Your task to perform on an android device: stop showing notifications on the lock screen Image 0: 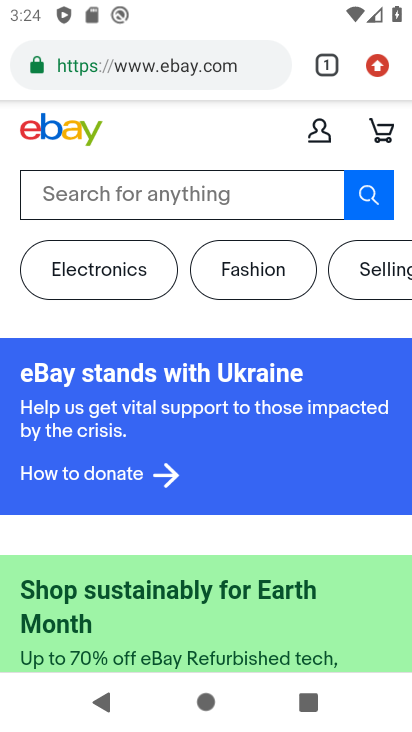
Step 0: press home button
Your task to perform on an android device: stop showing notifications on the lock screen Image 1: 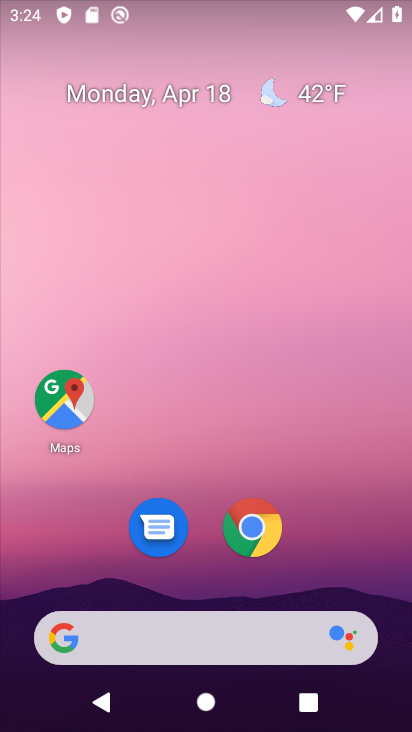
Step 1: drag from (404, 659) to (362, 79)
Your task to perform on an android device: stop showing notifications on the lock screen Image 2: 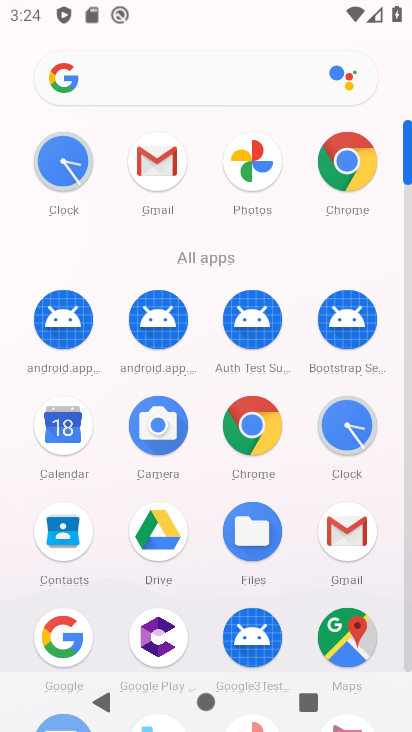
Step 2: click (406, 652)
Your task to perform on an android device: stop showing notifications on the lock screen Image 3: 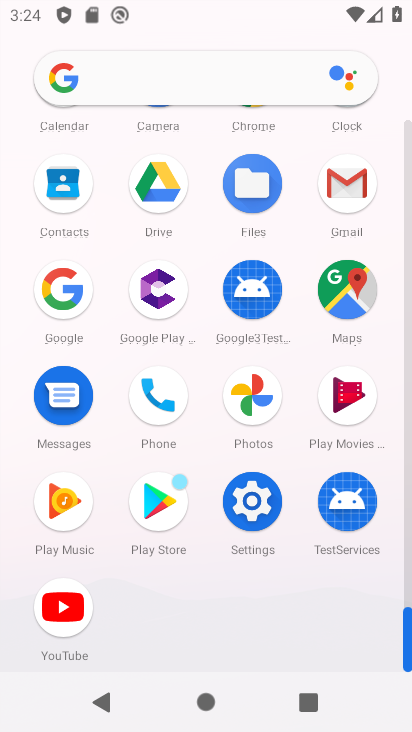
Step 3: click (251, 500)
Your task to perform on an android device: stop showing notifications on the lock screen Image 4: 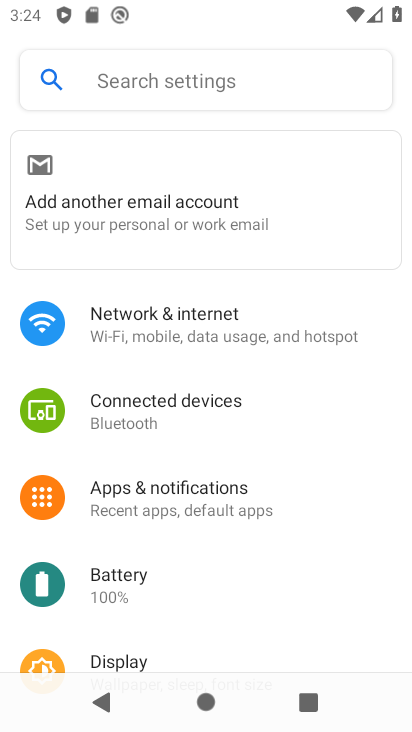
Step 4: click (194, 482)
Your task to perform on an android device: stop showing notifications on the lock screen Image 5: 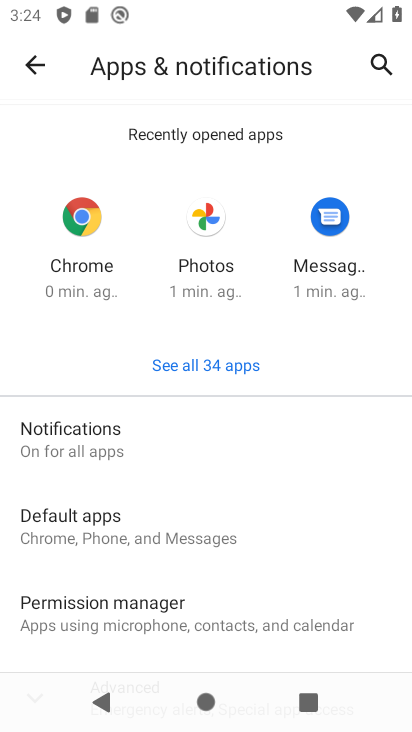
Step 5: drag from (221, 568) to (220, 409)
Your task to perform on an android device: stop showing notifications on the lock screen Image 6: 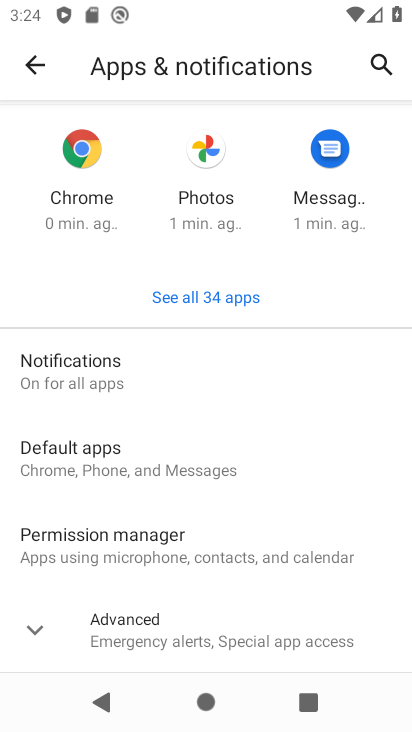
Step 6: click (54, 366)
Your task to perform on an android device: stop showing notifications on the lock screen Image 7: 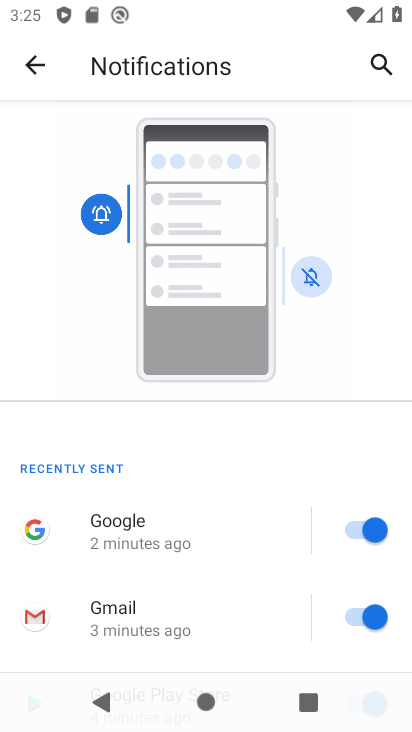
Step 7: drag from (308, 603) to (284, 238)
Your task to perform on an android device: stop showing notifications on the lock screen Image 8: 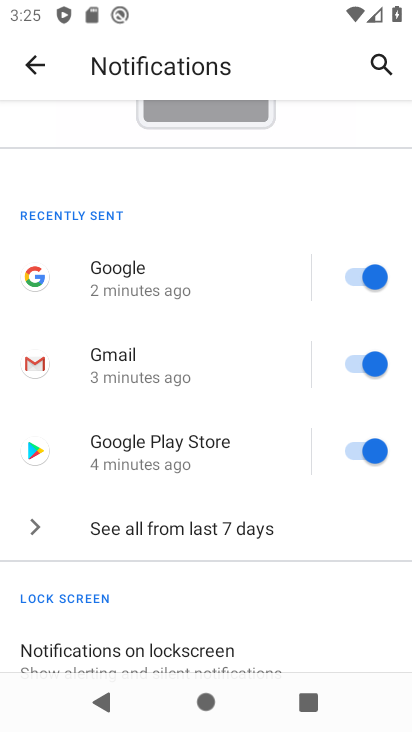
Step 8: drag from (299, 607) to (264, 253)
Your task to perform on an android device: stop showing notifications on the lock screen Image 9: 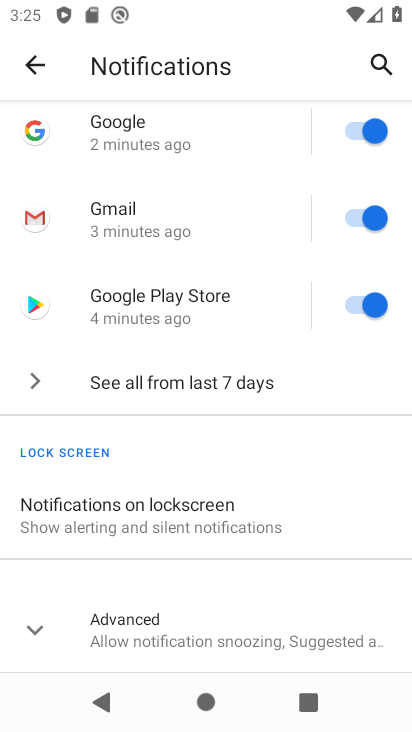
Step 9: click (103, 518)
Your task to perform on an android device: stop showing notifications on the lock screen Image 10: 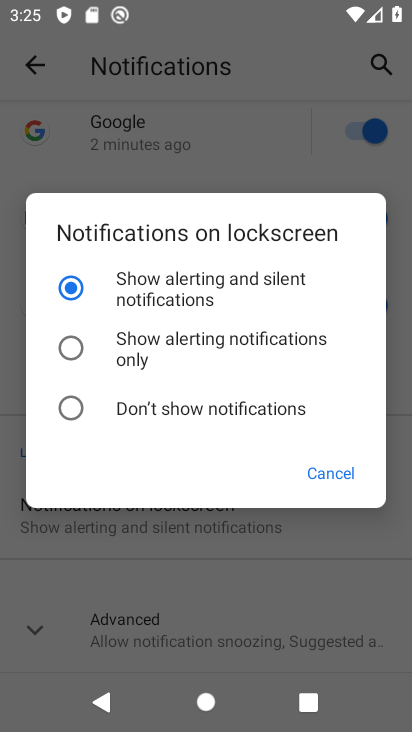
Step 10: click (75, 409)
Your task to perform on an android device: stop showing notifications on the lock screen Image 11: 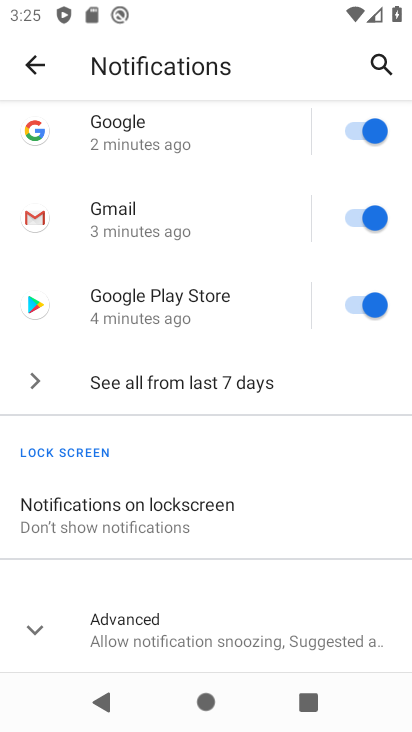
Step 11: task complete